Your task to perform on an android device: Open calendar and show me the third week of next month Image 0: 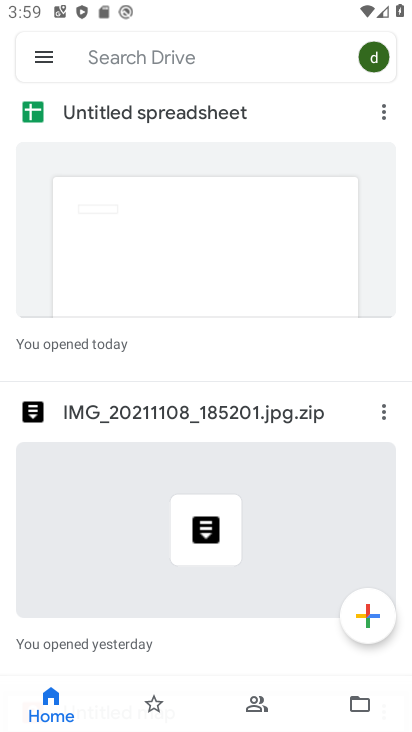
Step 0: press home button
Your task to perform on an android device: Open calendar and show me the third week of next month Image 1: 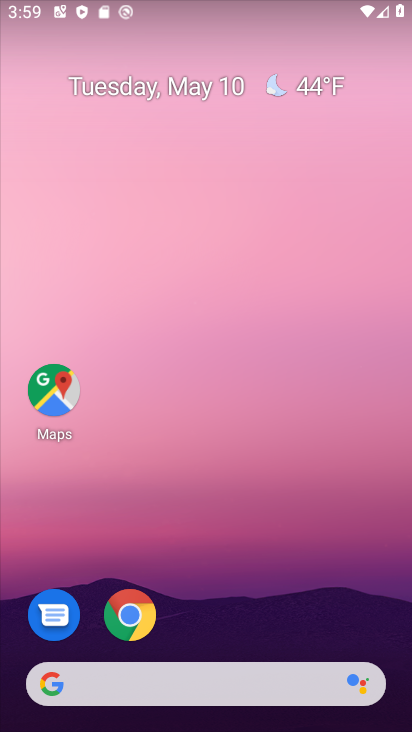
Step 1: drag from (185, 720) to (183, 178)
Your task to perform on an android device: Open calendar and show me the third week of next month Image 2: 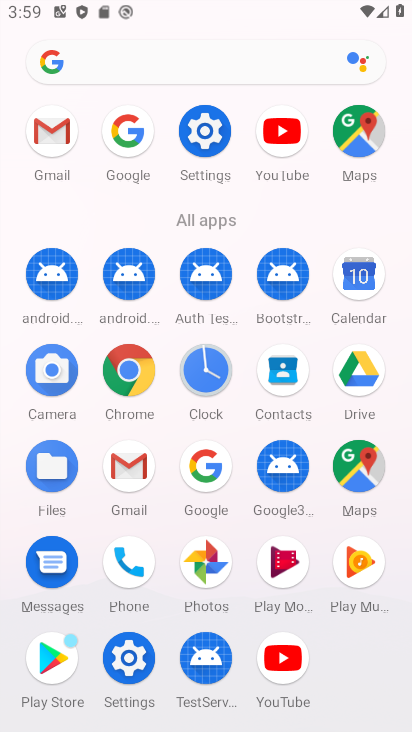
Step 2: click (353, 275)
Your task to perform on an android device: Open calendar and show me the third week of next month Image 3: 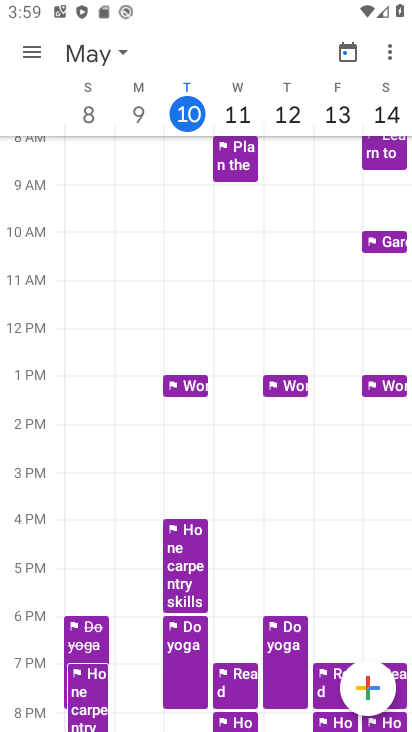
Step 3: click (123, 46)
Your task to perform on an android device: Open calendar and show me the third week of next month Image 4: 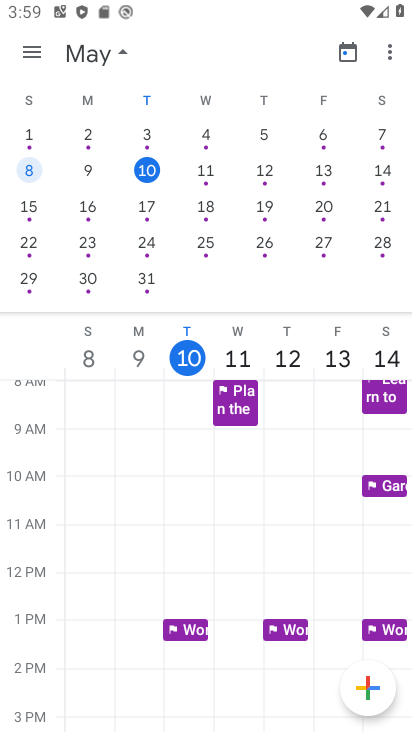
Step 4: drag from (356, 198) to (19, 182)
Your task to perform on an android device: Open calendar and show me the third week of next month Image 5: 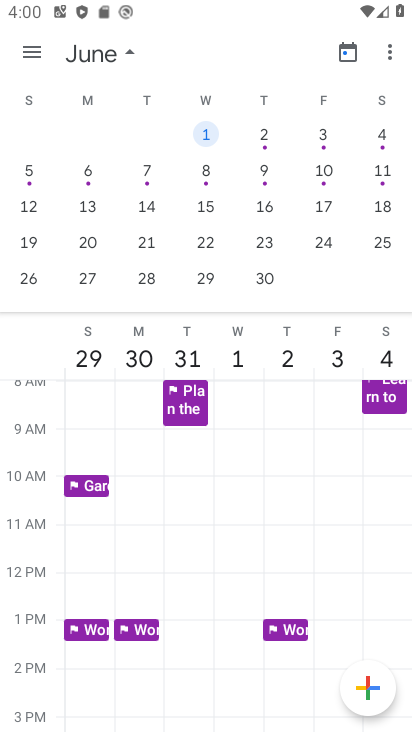
Step 5: click (85, 243)
Your task to perform on an android device: Open calendar and show me the third week of next month Image 6: 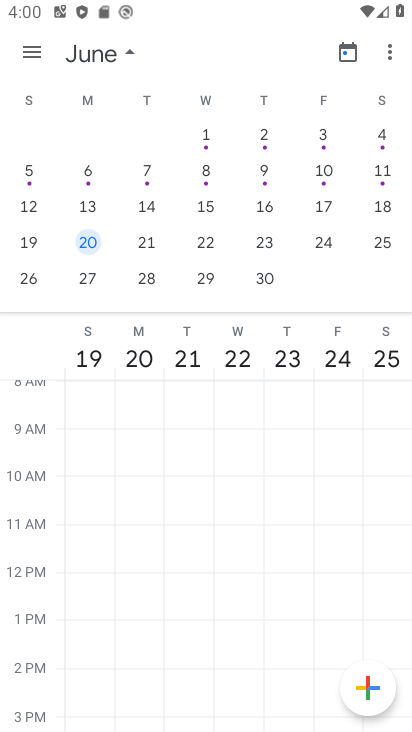
Step 6: task complete